Your task to perform on an android device: Do I have any events this weekend? Image 0: 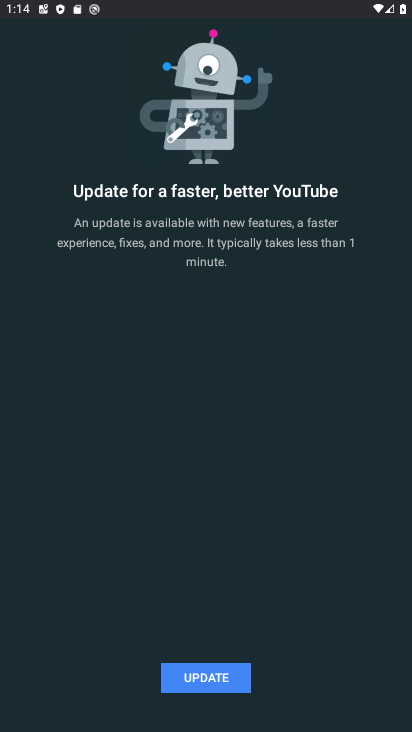
Step 0: press home button
Your task to perform on an android device: Do I have any events this weekend? Image 1: 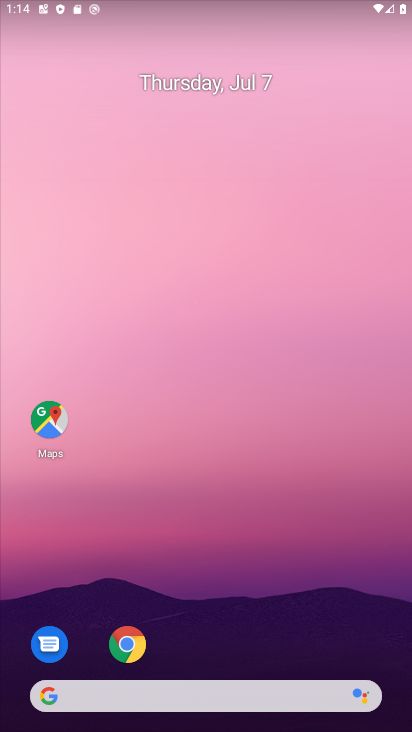
Step 1: drag from (206, 574) to (223, 95)
Your task to perform on an android device: Do I have any events this weekend? Image 2: 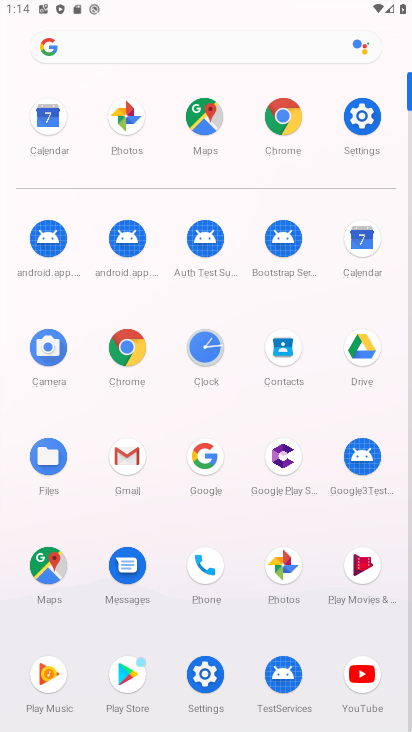
Step 2: click (372, 252)
Your task to perform on an android device: Do I have any events this weekend? Image 3: 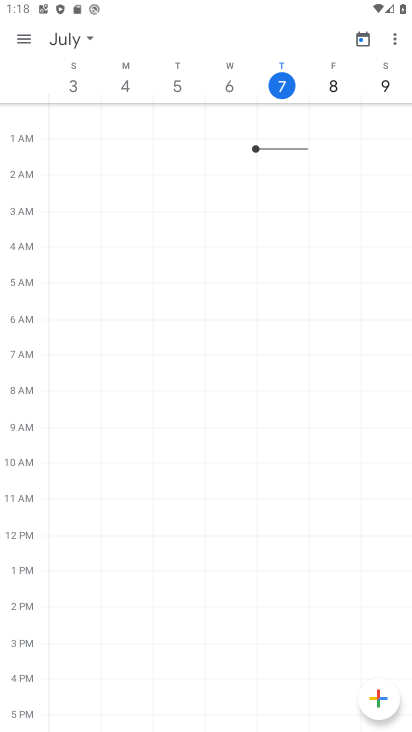
Step 3: task complete